Your task to perform on an android device: Open eBay Image 0: 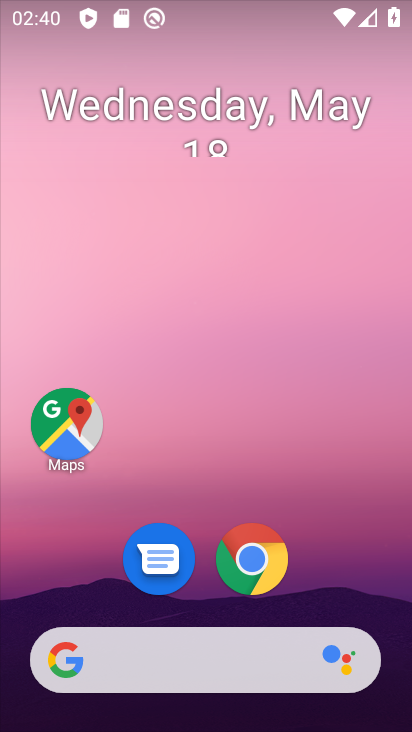
Step 0: click (258, 559)
Your task to perform on an android device: Open eBay Image 1: 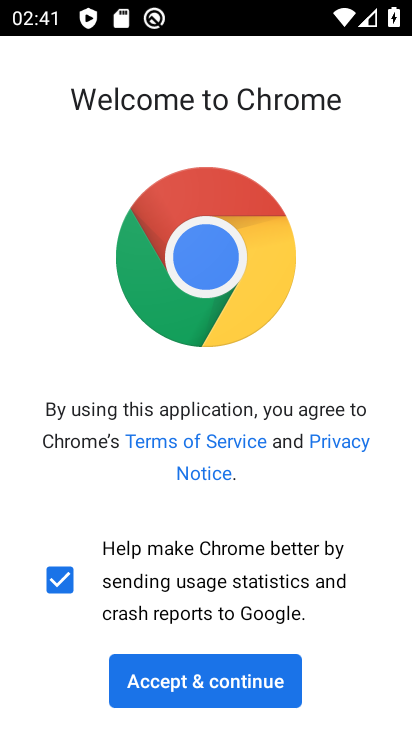
Step 1: click (193, 688)
Your task to perform on an android device: Open eBay Image 2: 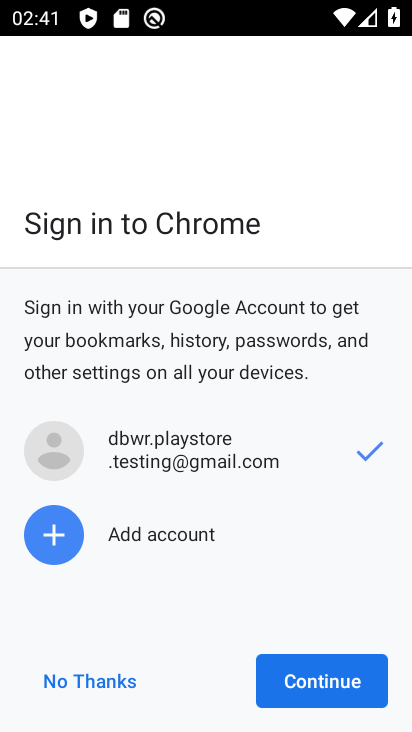
Step 2: click (395, 681)
Your task to perform on an android device: Open eBay Image 3: 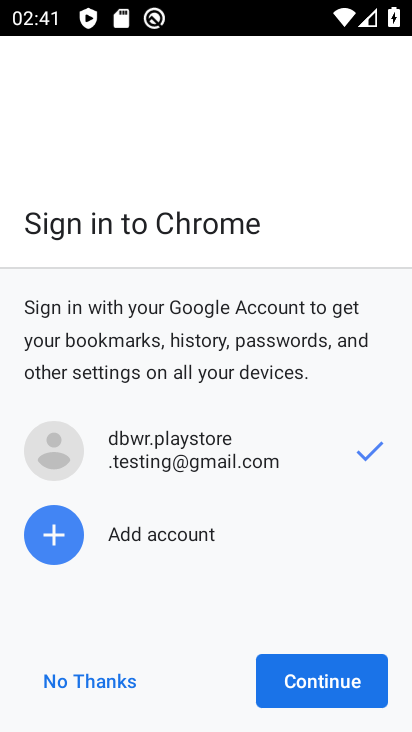
Step 3: click (281, 681)
Your task to perform on an android device: Open eBay Image 4: 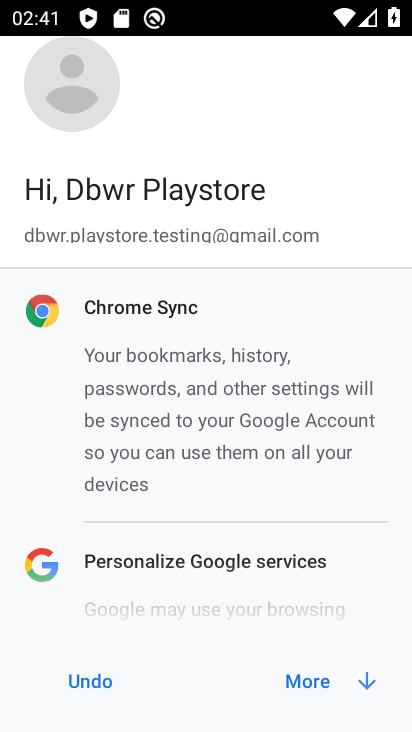
Step 4: click (301, 698)
Your task to perform on an android device: Open eBay Image 5: 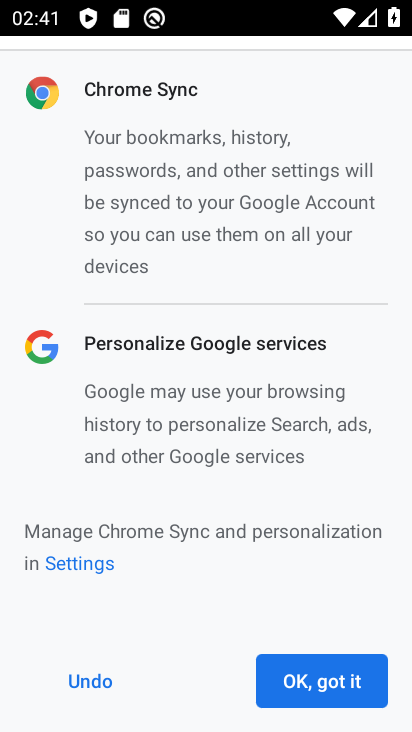
Step 5: click (301, 698)
Your task to perform on an android device: Open eBay Image 6: 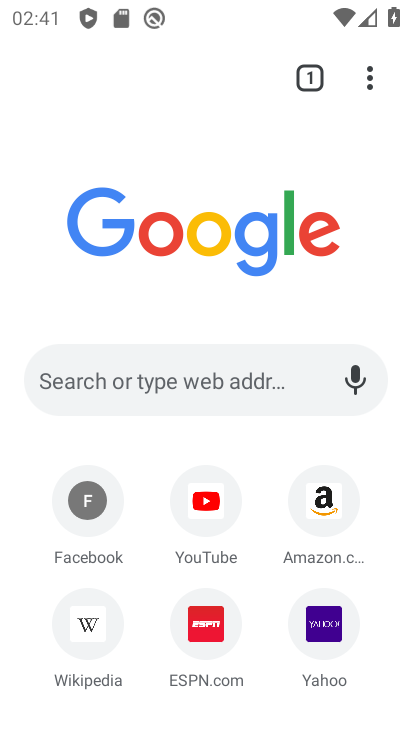
Step 6: drag from (214, 654) to (305, 271)
Your task to perform on an android device: Open eBay Image 7: 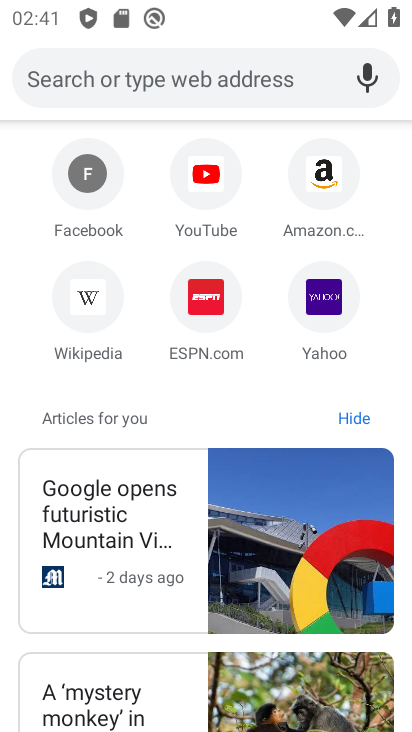
Step 7: click (115, 72)
Your task to perform on an android device: Open eBay Image 8: 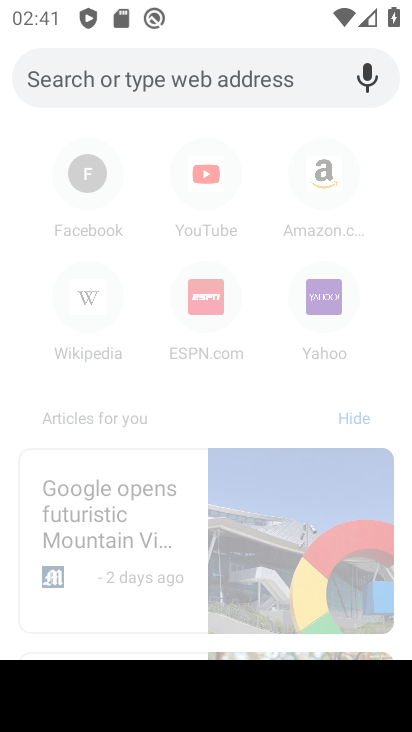
Step 8: type "ebay"
Your task to perform on an android device: Open eBay Image 9: 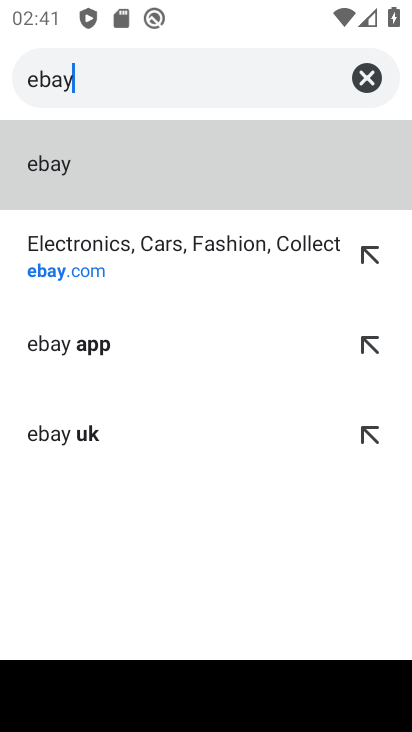
Step 9: click (155, 268)
Your task to perform on an android device: Open eBay Image 10: 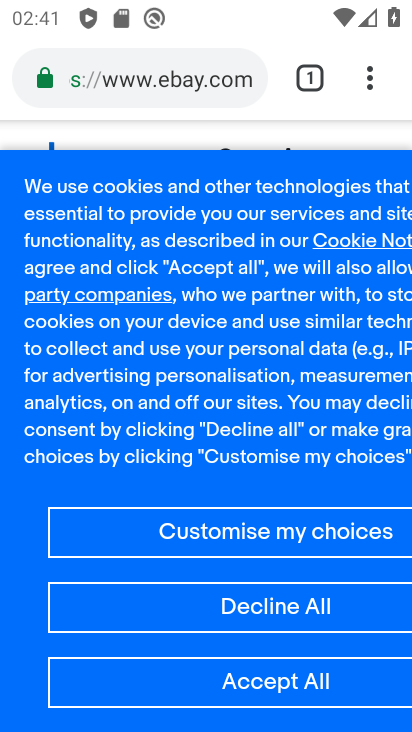
Step 10: task complete